Your task to perform on an android device: change the clock display to digital Image 0: 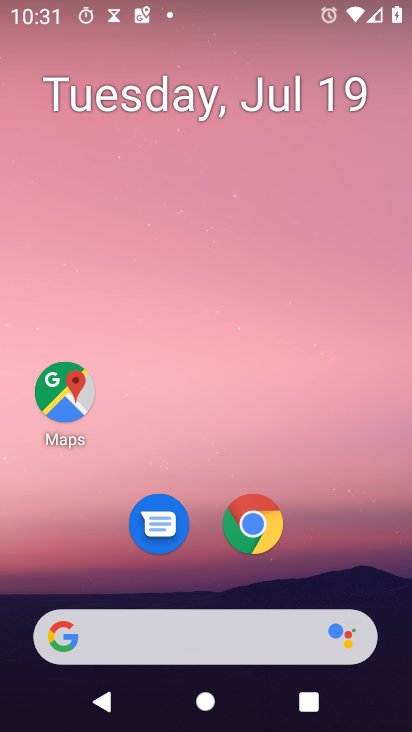
Step 0: press home button
Your task to perform on an android device: change the clock display to digital Image 1: 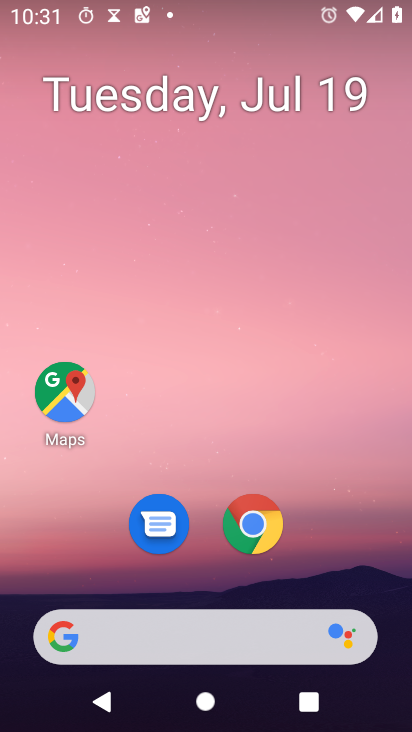
Step 1: drag from (211, 648) to (312, 182)
Your task to perform on an android device: change the clock display to digital Image 2: 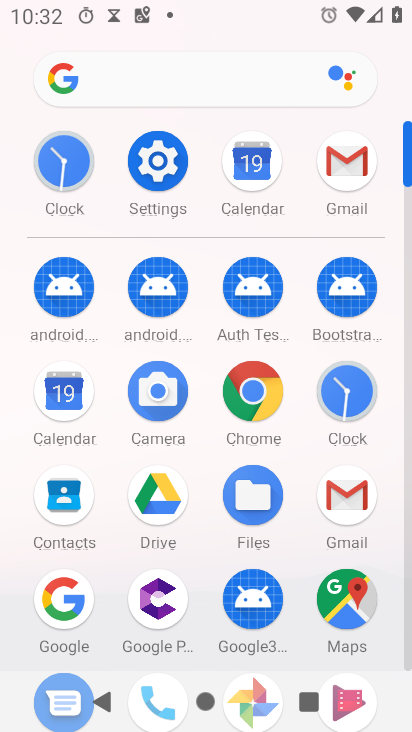
Step 2: click (339, 384)
Your task to perform on an android device: change the clock display to digital Image 3: 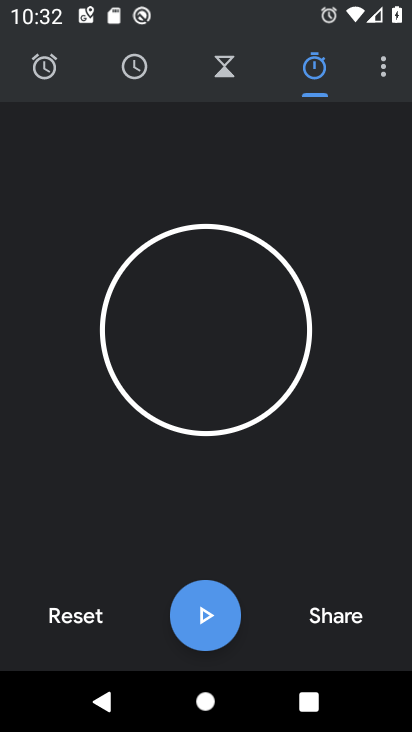
Step 3: click (384, 71)
Your task to perform on an android device: change the clock display to digital Image 4: 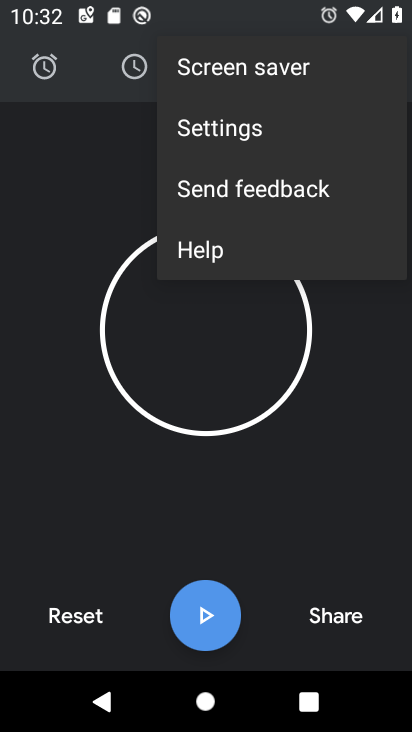
Step 4: click (239, 131)
Your task to perform on an android device: change the clock display to digital Image 5: 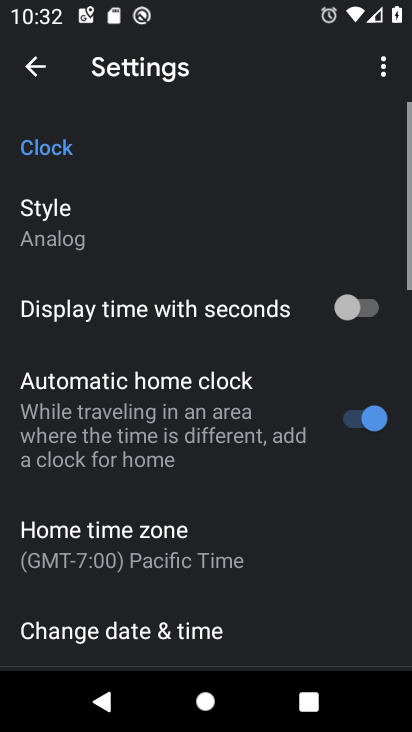
Step 5: click (87, 235)
Your task to perform on an android device: change the clock display to digital Image 6: 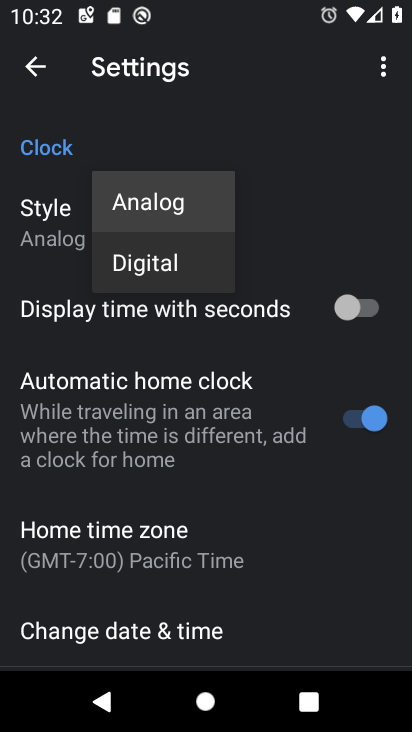
Step 6: click (137, 264)
Your task to perform on an android device: change the clock display to digital Image 7: 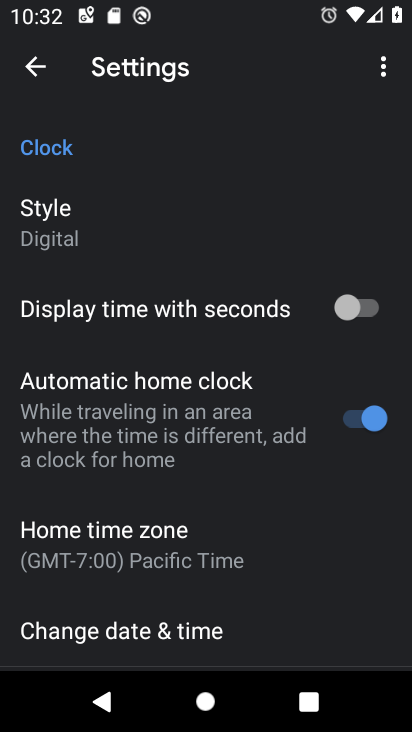
Step 7: task complete